Your task to perform on an android device: Open Google Maps Image 0: 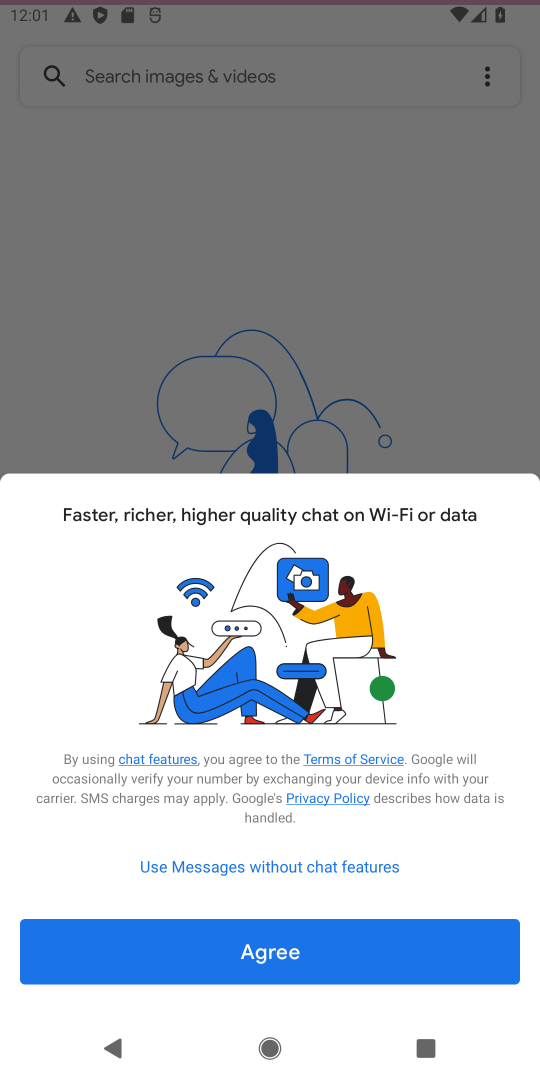
Step 0: press home button
Your task to perform on an android device: Open Google Maps Image 1: 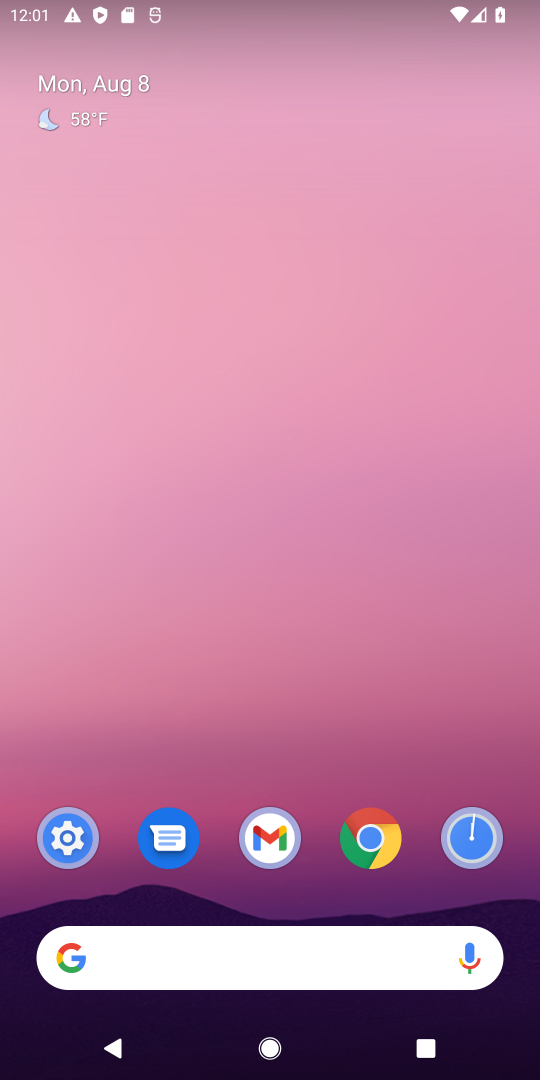
Step 1: drag from (318, 842) to (296, 72)
Your task to perform on an android device: Open Google Maps Image 2: 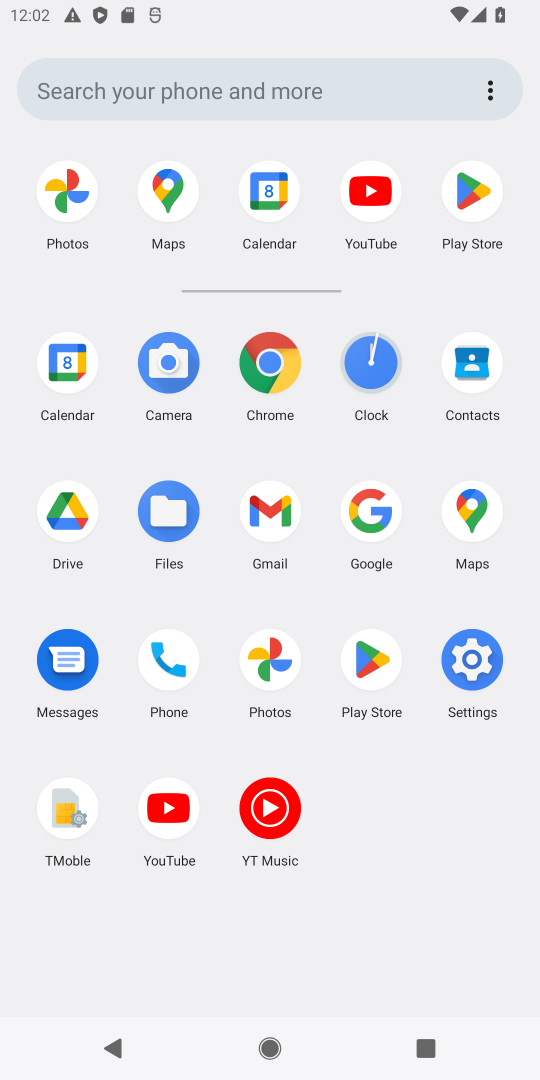
Step 2: click (171, 194)
Your task to perform on an android device: Open Google Maps Image 3: 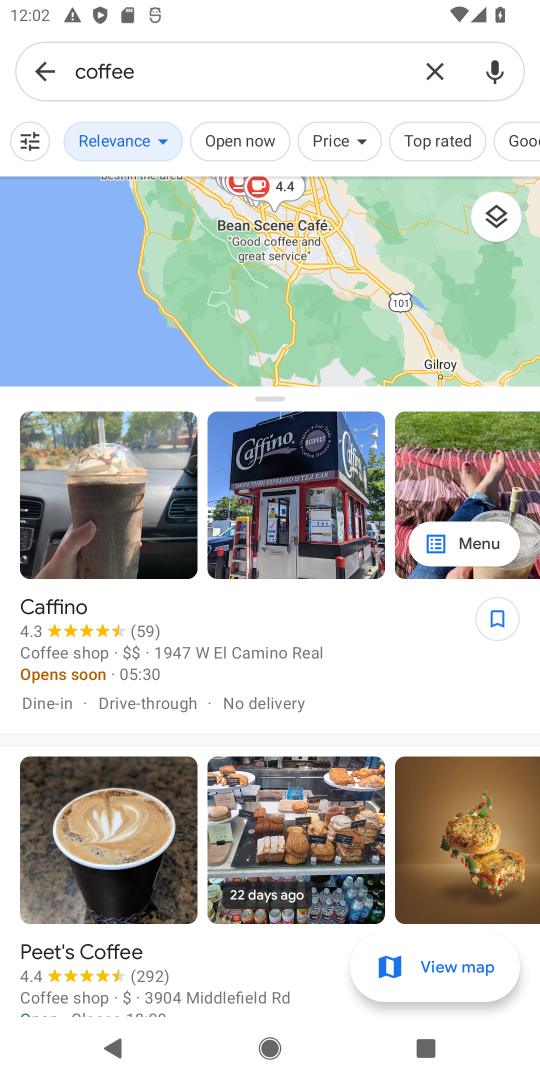
Step 3: click (36, 69)
Your task to perform on an android device: Open Google Maps Image 4: 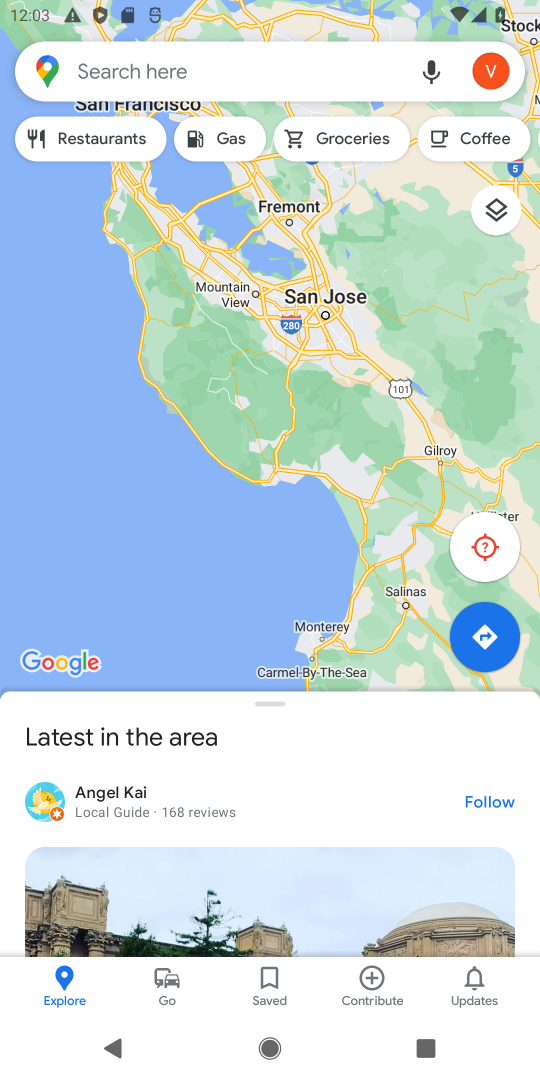
Step 4: task complete